Your task to perform on an android device: open app "Facebook" (install if not already installed) and enter user name: "resultants@gmail.com" and password: "earned" Image 0: 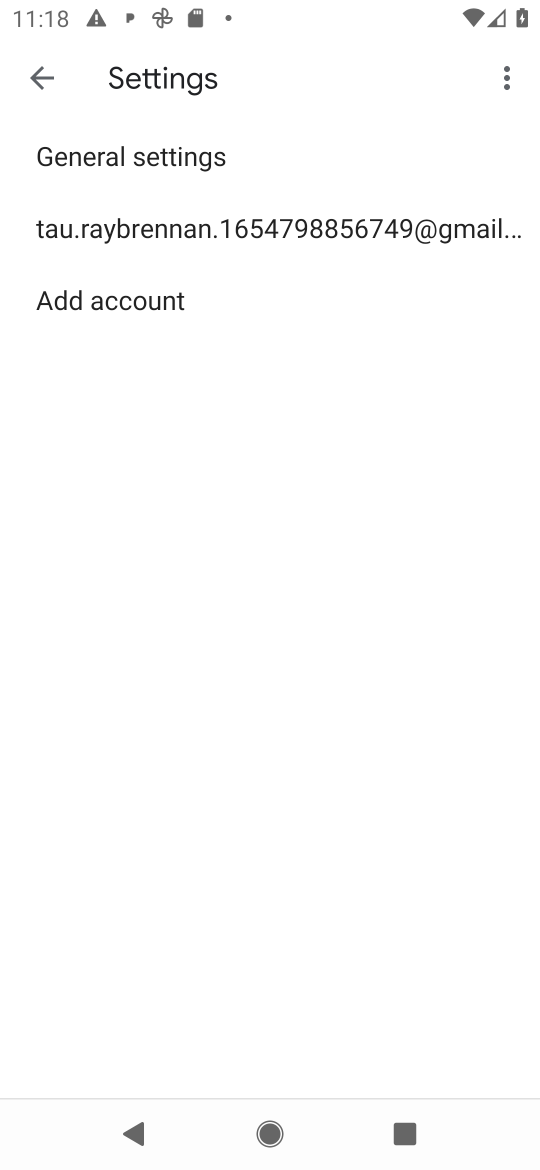
Step 0: press home button
Your task to perform on an android device: open app "Facebook" (install if not already installed) and enter user name: "resultants@gmail.com" and password: "earned" Image 1: 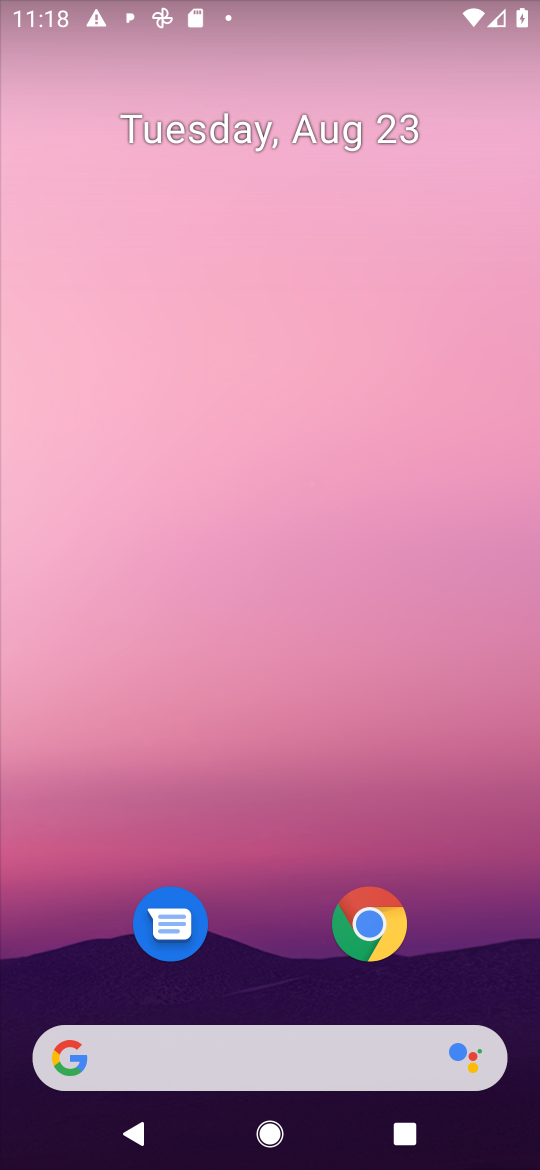
Step 1: drag from (493, 948) to (466, 191)
Your task to perform on an android device: open app "Facebook" (install if not already installed) and enter user name: "resultants@gmail.com" and password: "earned" Image 2: 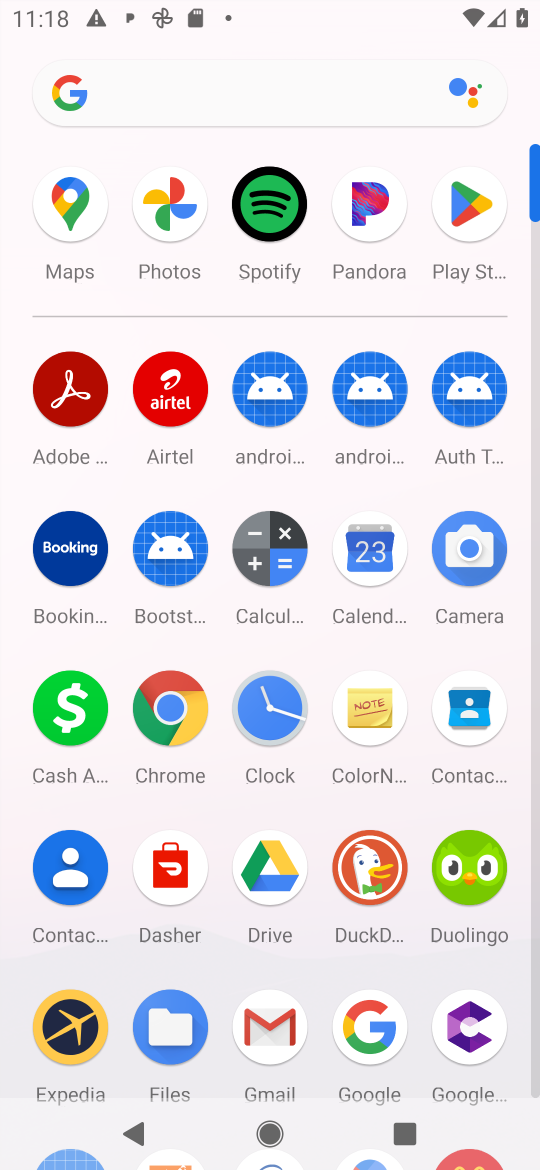
Step 2: click (465, 219)
Your task to perform on an android device: open app "Facebook" (install if not already installed) and enter user name: "resultants@gmail.com" and password: "earned" Image 3: 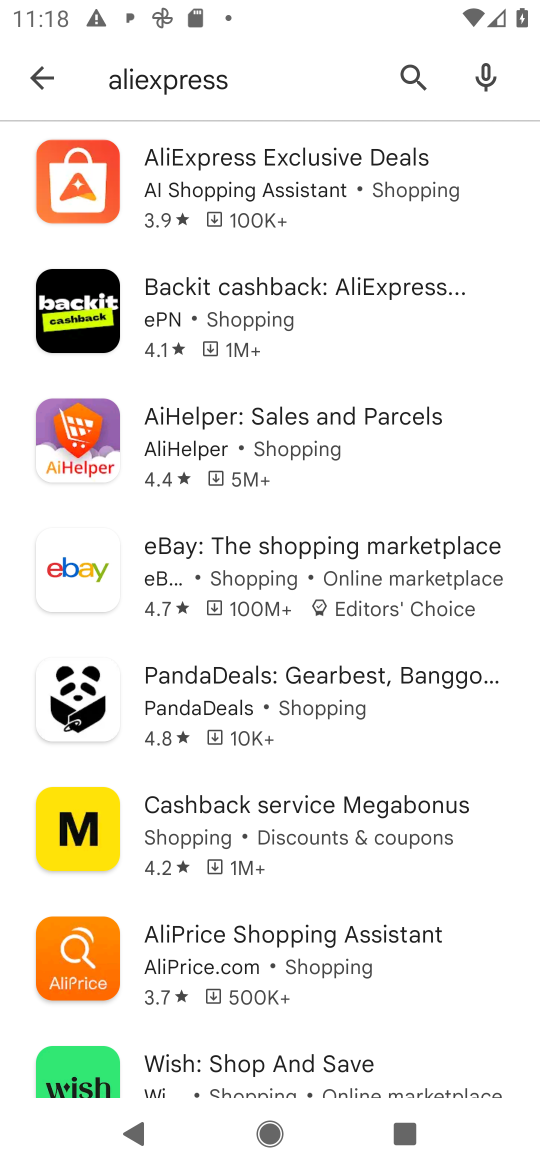
Step 3: press back button
Your task to perform on an android device: open app "Facebook" (install if not already installed) and enter user name: "resultants@gmail.com" and password: "earned" Image 4: 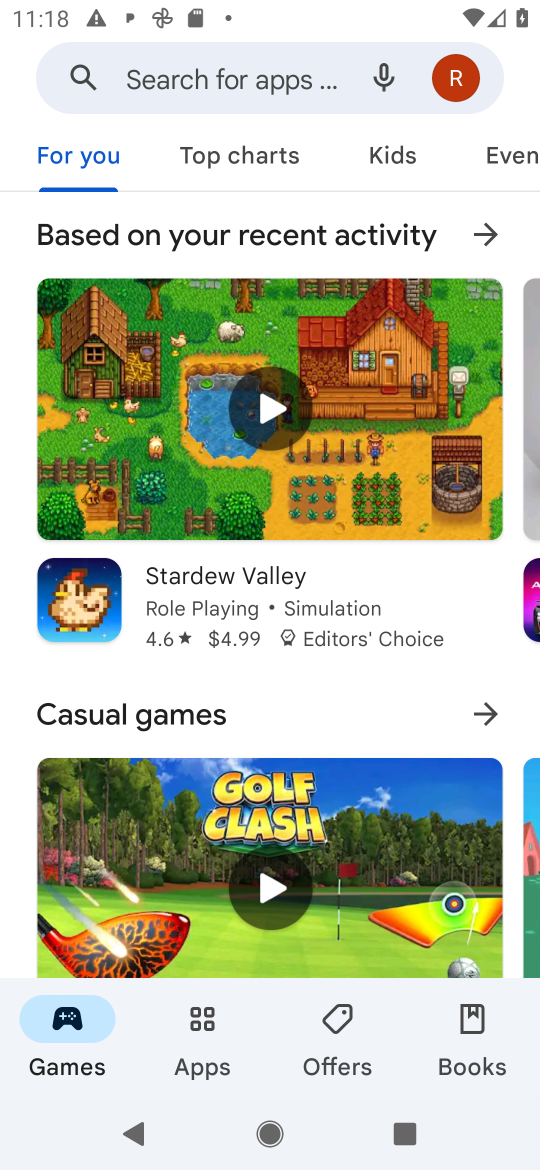
Step 4: click (196, 78)
Your task to perform on an android device: open app "Facebook" (install if not already installed) and enter user name: "resultants@gmail.com" and password: "earned" Image 5: 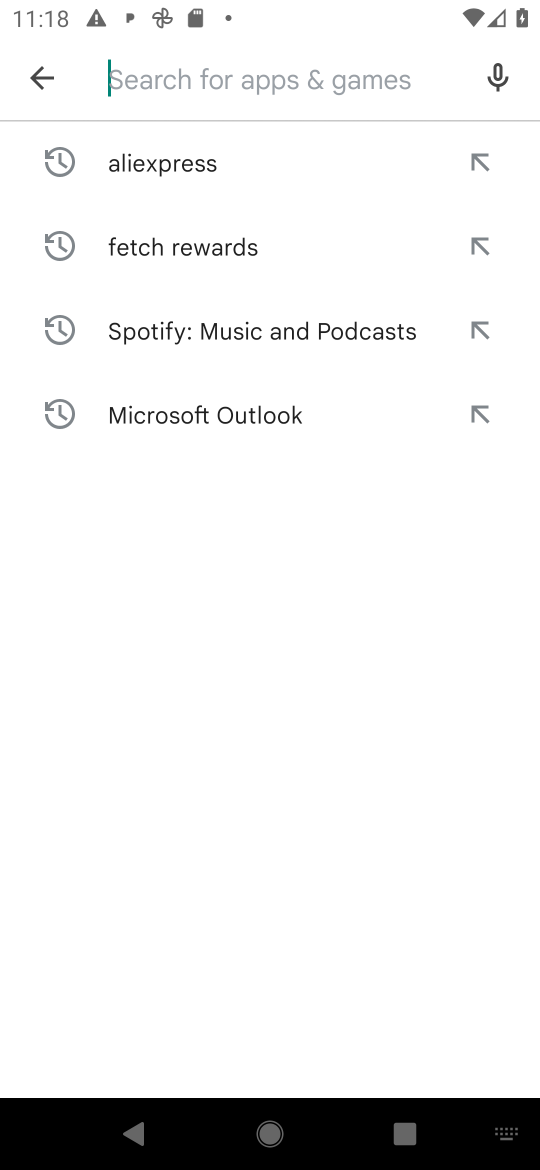
Step 5: press enter
Your task to perform on an android device: open app "Facebook" (install if not already installed) and enter user name: "resultants@gmail.com" and password: "earned" Image 6: 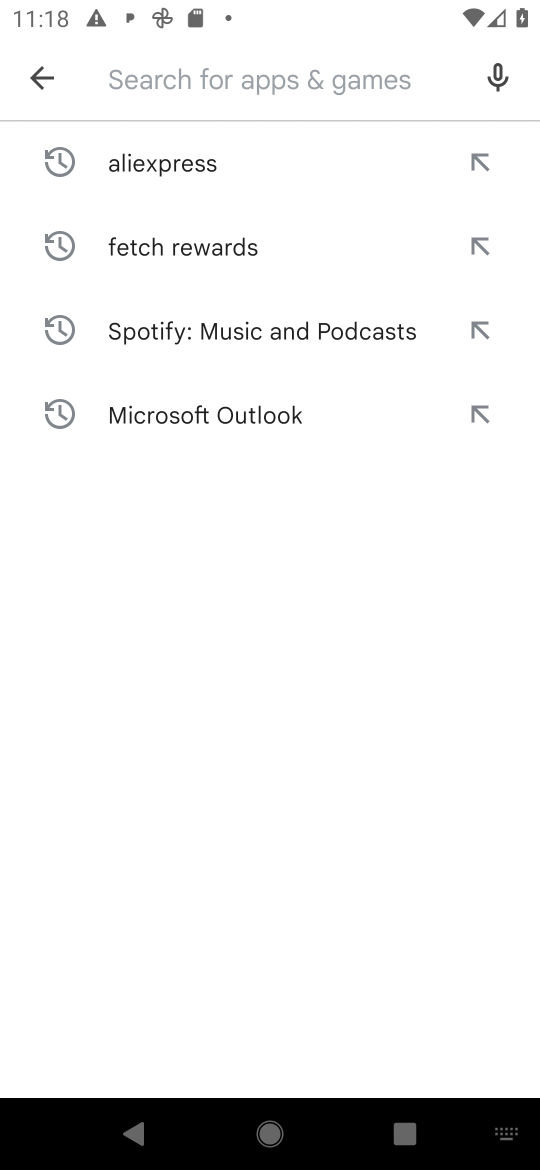
Step 6: type "facebook"
Your task to perform on an android device: open app "Facebook" (install if not already installed) and enter user name: "resultants@gmail.com" and password: "earned" Image 7: 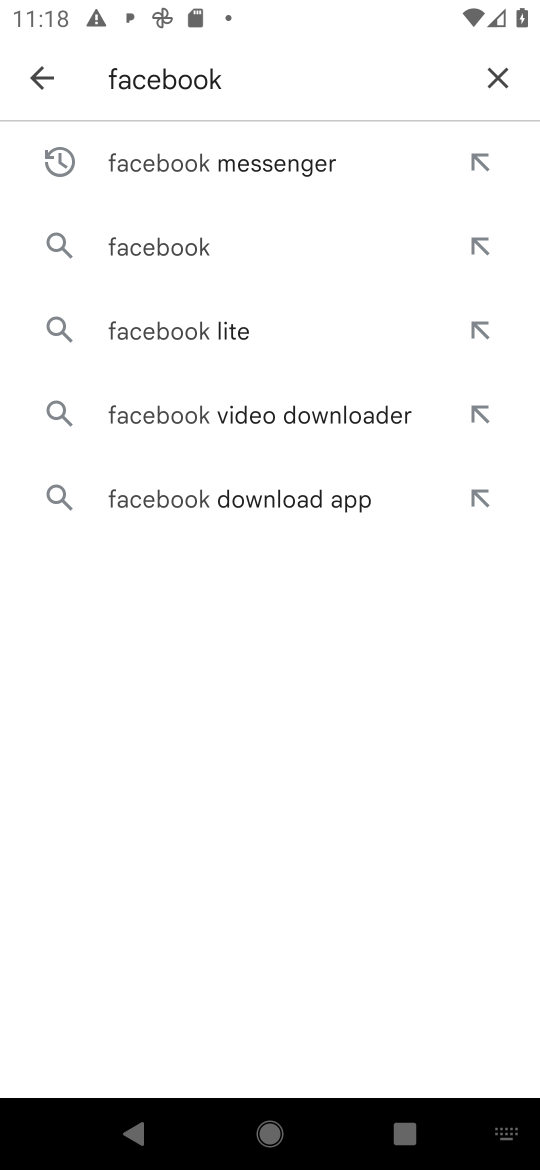
Step 7: click (199, 242)
Your task to perform on an android device: open app "Facebook" (install if not already installed) and enter user name: "resultants@gmail.com" and password: "earned" Image 8: 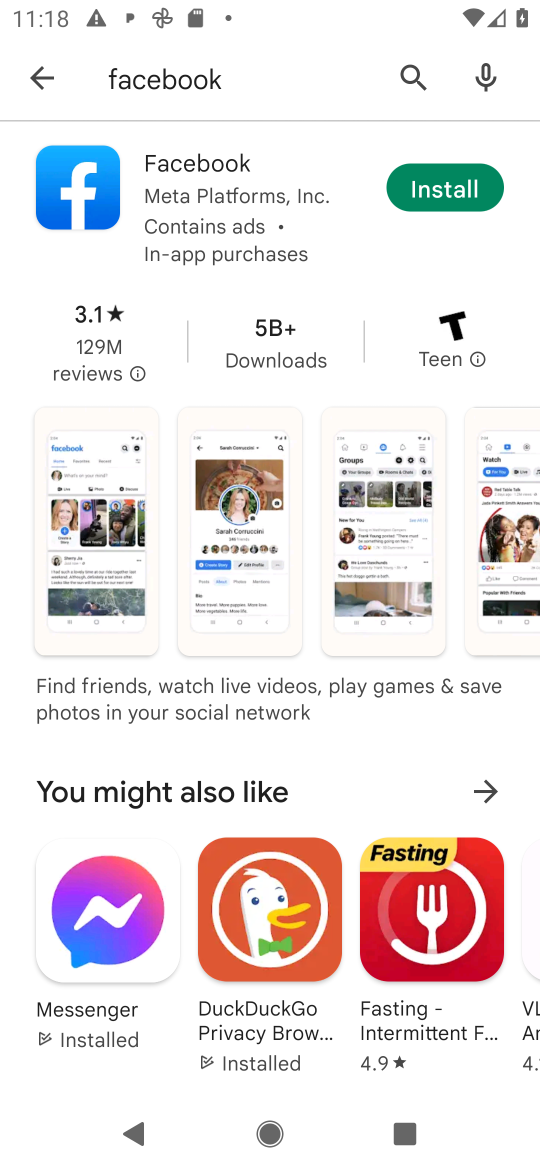
Step 8: click (457, 179)
Your task to perform on an android device: open app "Facebook" (install if not already installed) and enter user name: "resultants@gmail.com" and password: "earned" Image 9: 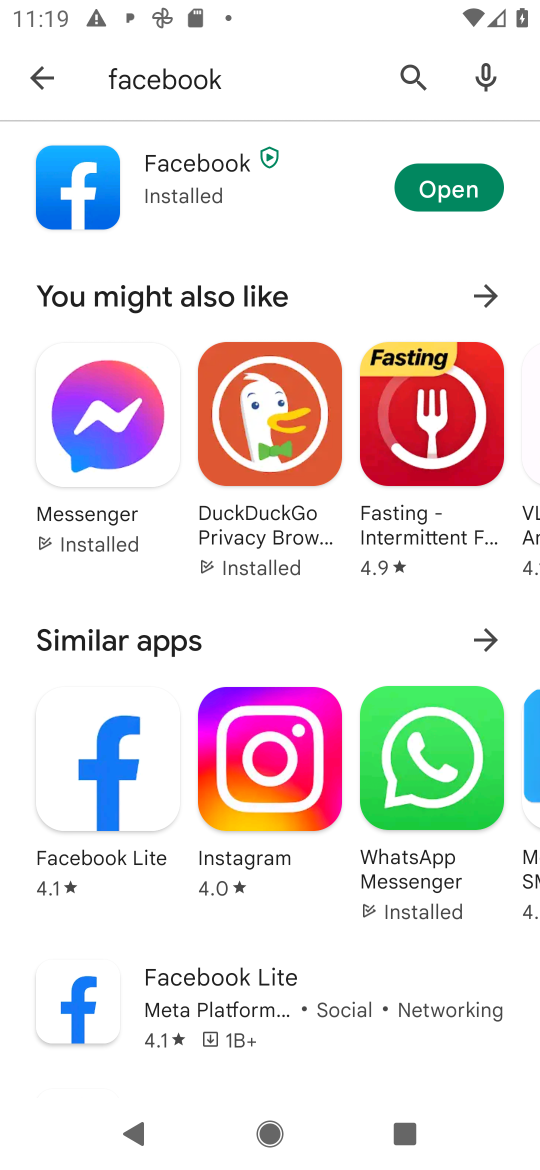
Step 9: click (465, 179)
Your task to perform on an android device: open app "Facebook" (install if not already installed) and enter user name: "resultants@gmail.com" and password: "earned" Image 10: 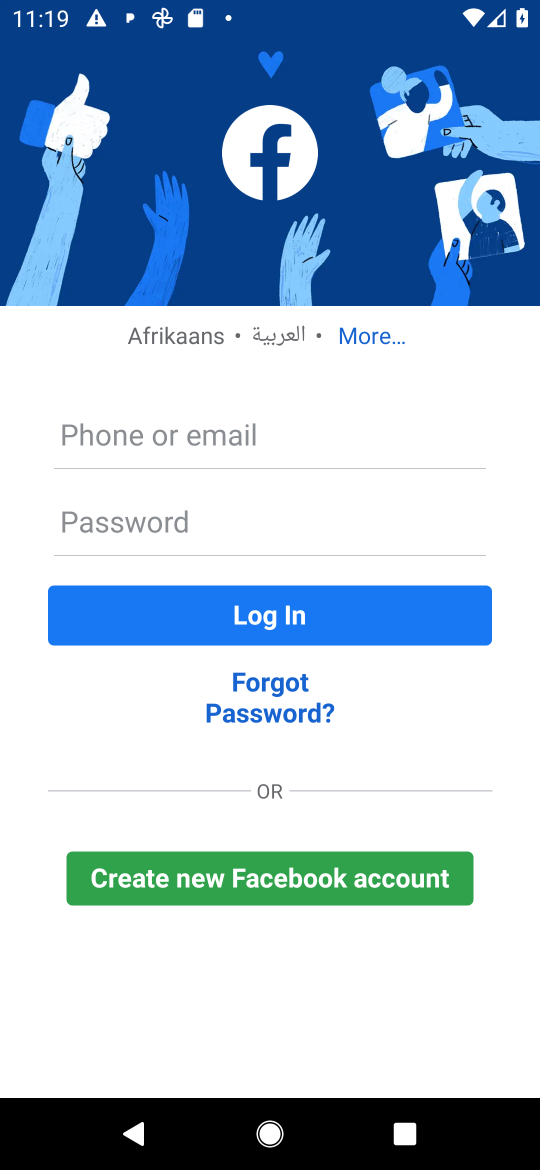
Step 10: click (269, 438)
Your task to perform on an android device: open app "Facebook" (install if not already installed) and enter user name: "resultants@gmail.com" and password: "earned" Image 11: 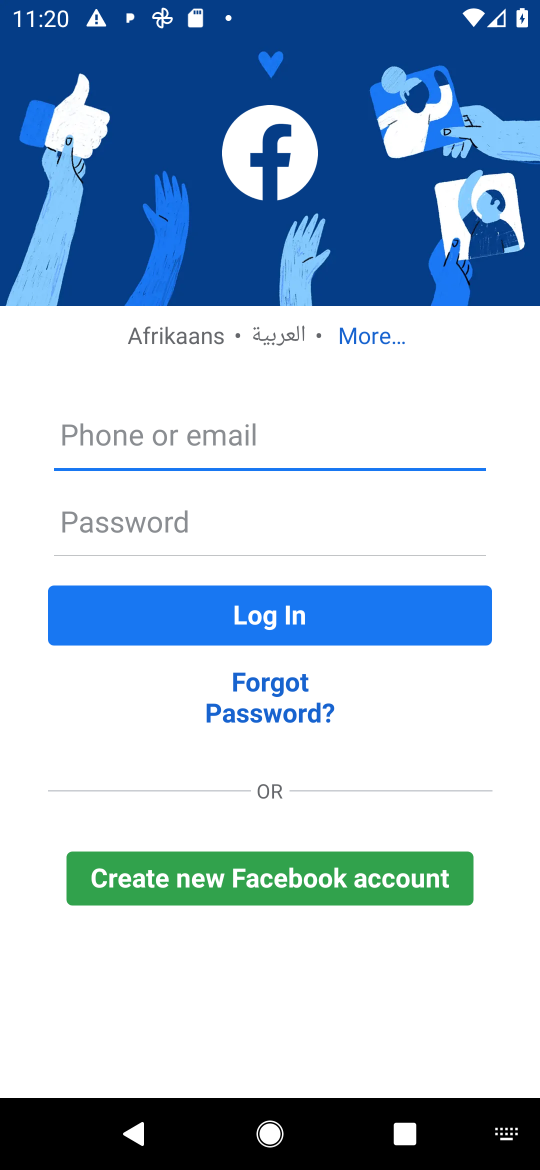
Step 11: type "resultants@gmail.com"
Your task to perform on an android device: open app "Facebook" (install if not already installed) and enter user name: "resultants@gmail.com" and password: "earned" Image 12: 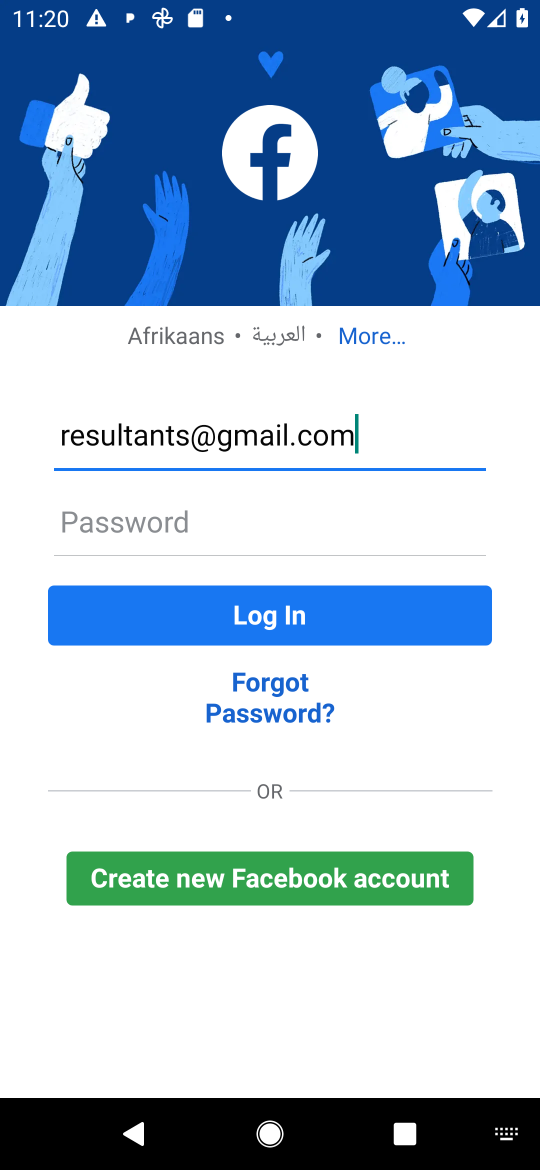
Step 12: click (179, 516)
Your task to perform on an android device: open app "Facebook" (install if not already installed) and enter user name: "resultants@gmail.com" and password: "earned" Image 13: 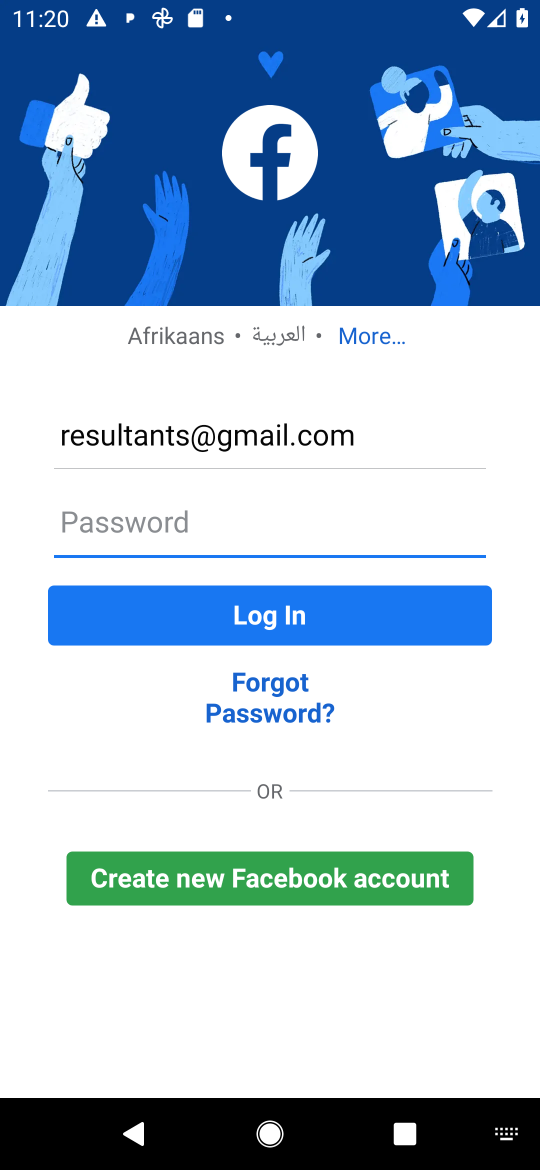
Step 13: type "earned"
Your task to perform on an android device: open app "Facebook" (install if not already installed) and enter user name: "resultants@gmail.com" and password: "earned" Image 14: 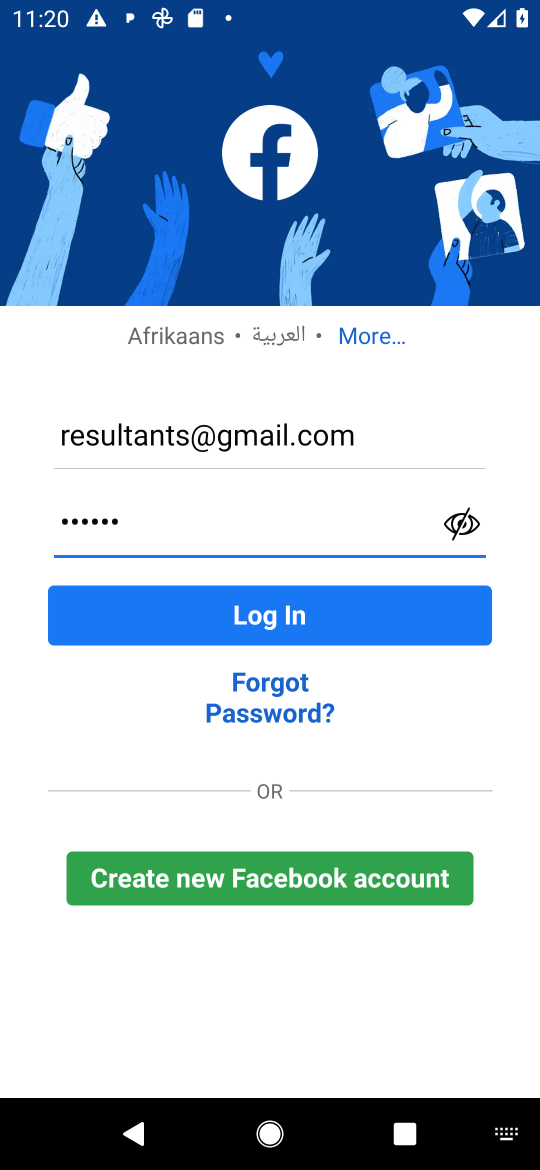
Step 14: task complete